Your task to perform on an android device: Search for razer thresher on ebay.com, select the first entry, add it to the cart, then select checkout. Image 0: 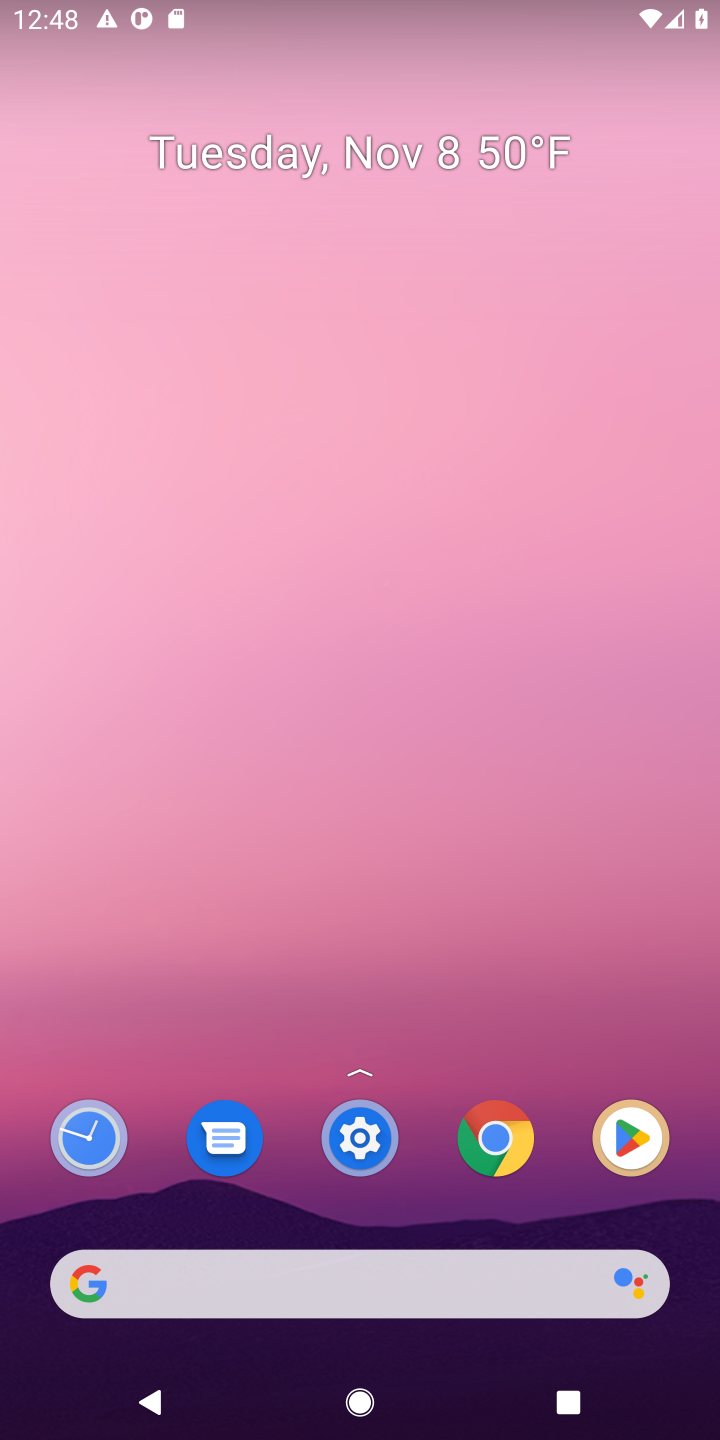
Step 0: click (314, 1315)
Your task to perform on an android device: Search for razer thresher on ebay.com, select the first entry, add it to the cart, then select checkout. Image 1: 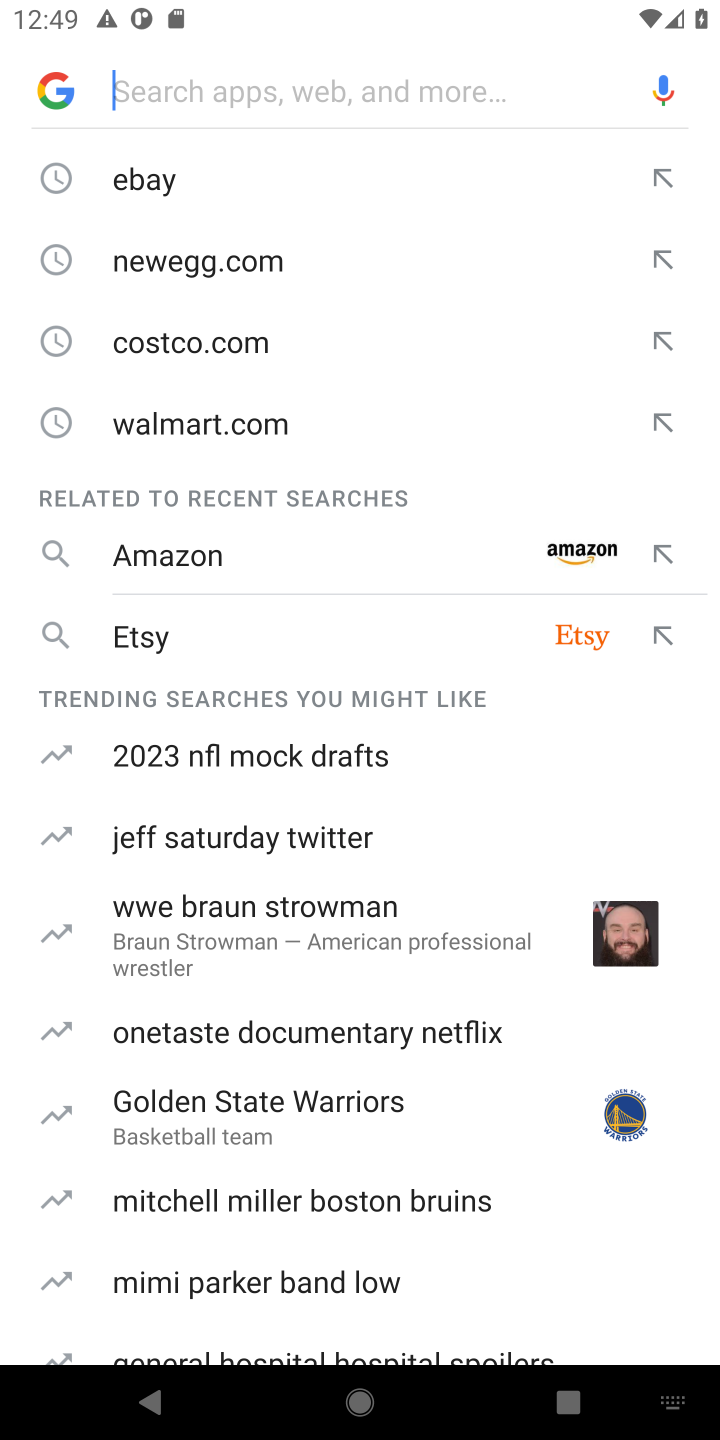
Step 1: click (275, 200)
Your task to perform on an android device: Search for razer thresher on ebay.com, select the first entry, add it to the cart, then select checkout. Image 2: 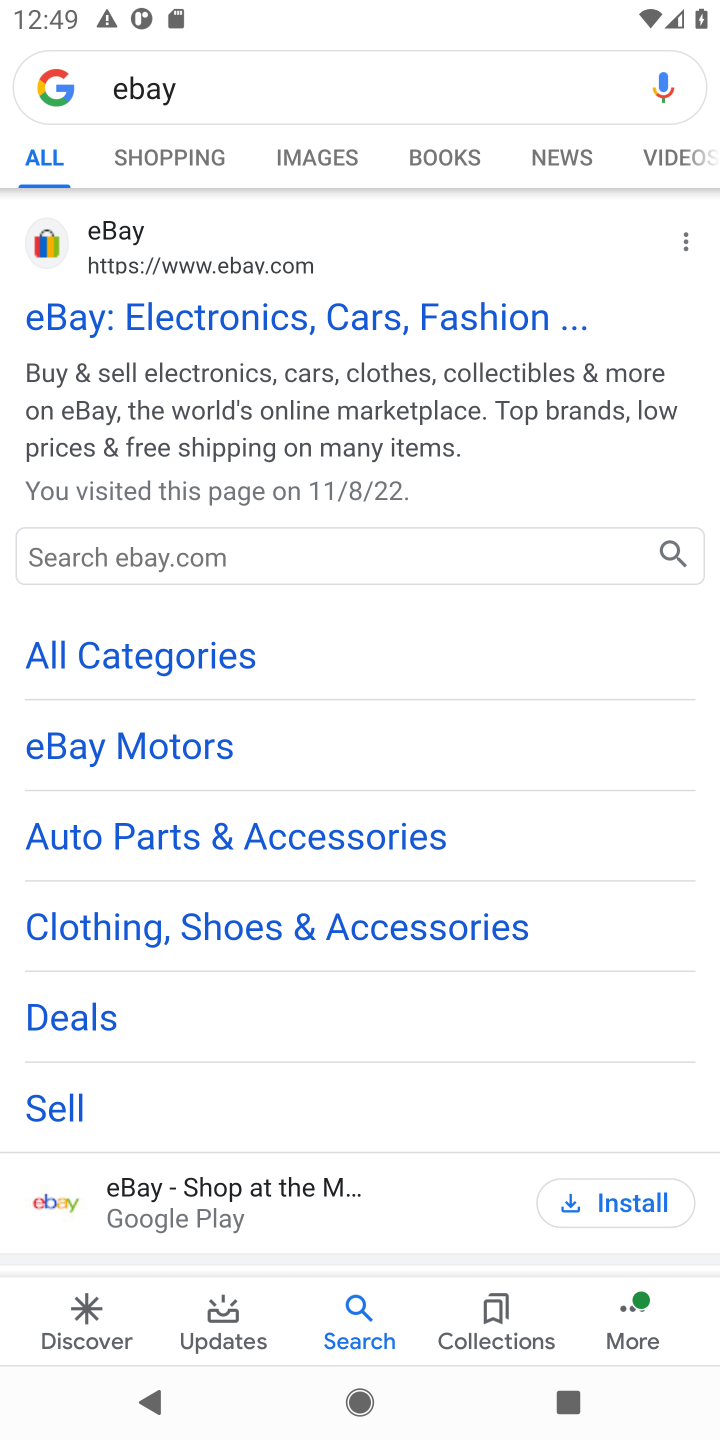
Step 2: click (228, 304)
Your task to perform on an android device: Search for razer thresher on ebay.com, select the first entry, add it to the cart, then select checkout. Image 3: 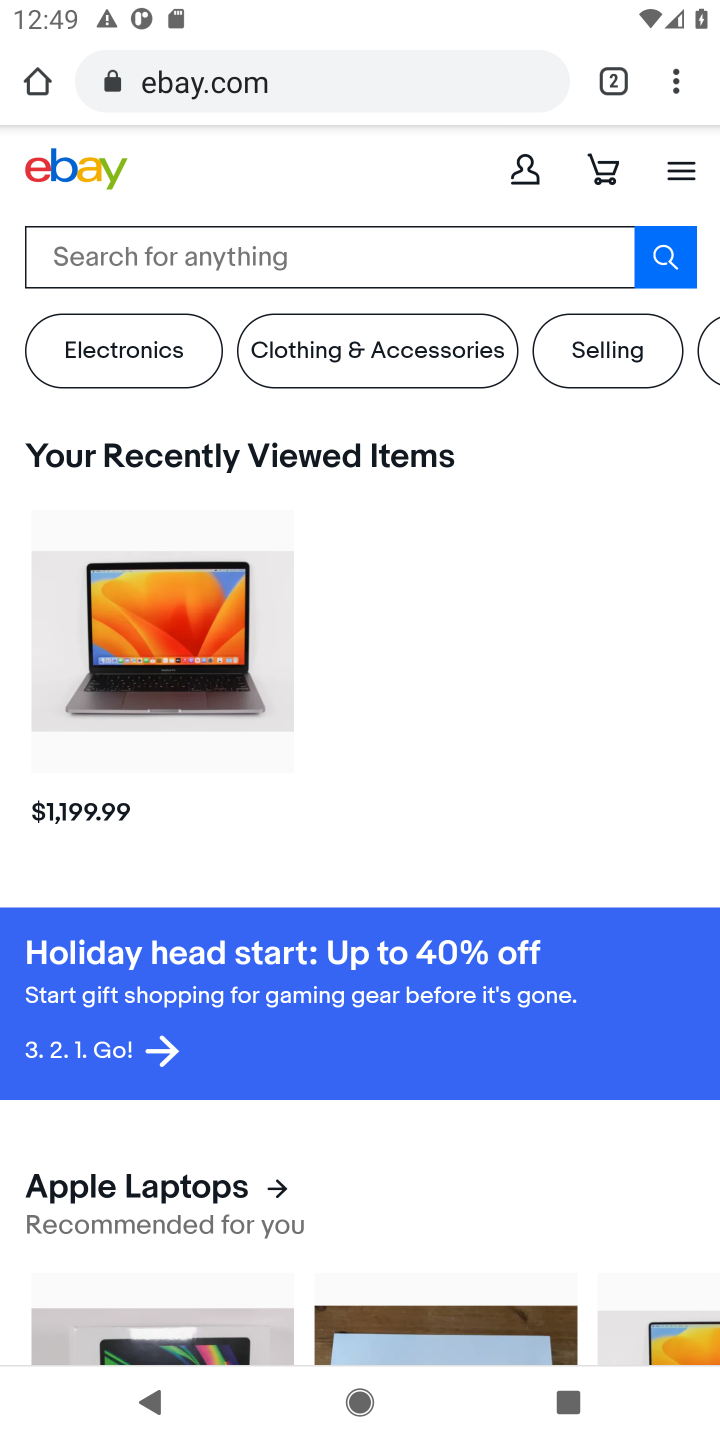
Step 3: click (286, 248)
Your task to perform on an android device: Search for razer thresher on ebay.com, select the first entry, add it to the cart, then select checkout. Image 4: 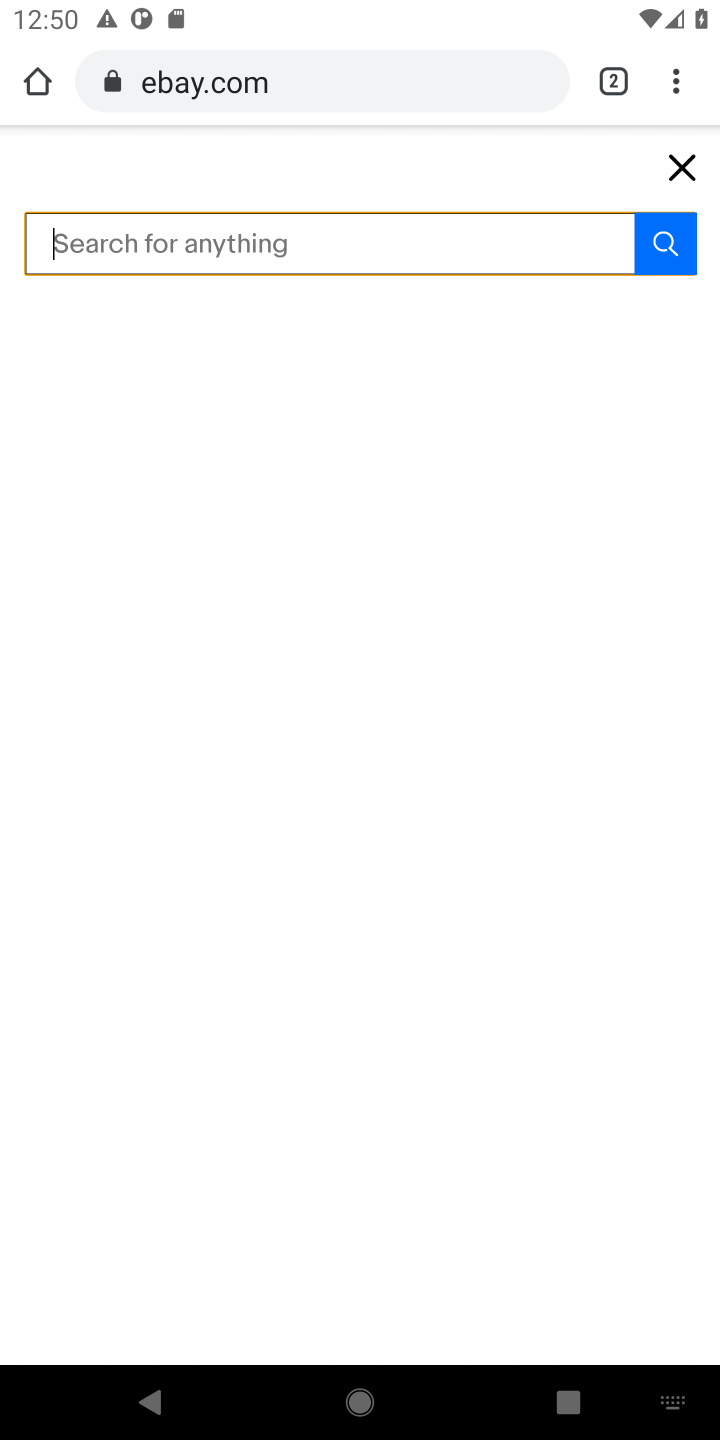
Step 4: type "ebay.coom"
Your task to perform on an android device: Search for razer thresher on ebay.com, select the first entry, add it to the cart, then select checkout. Image 5: 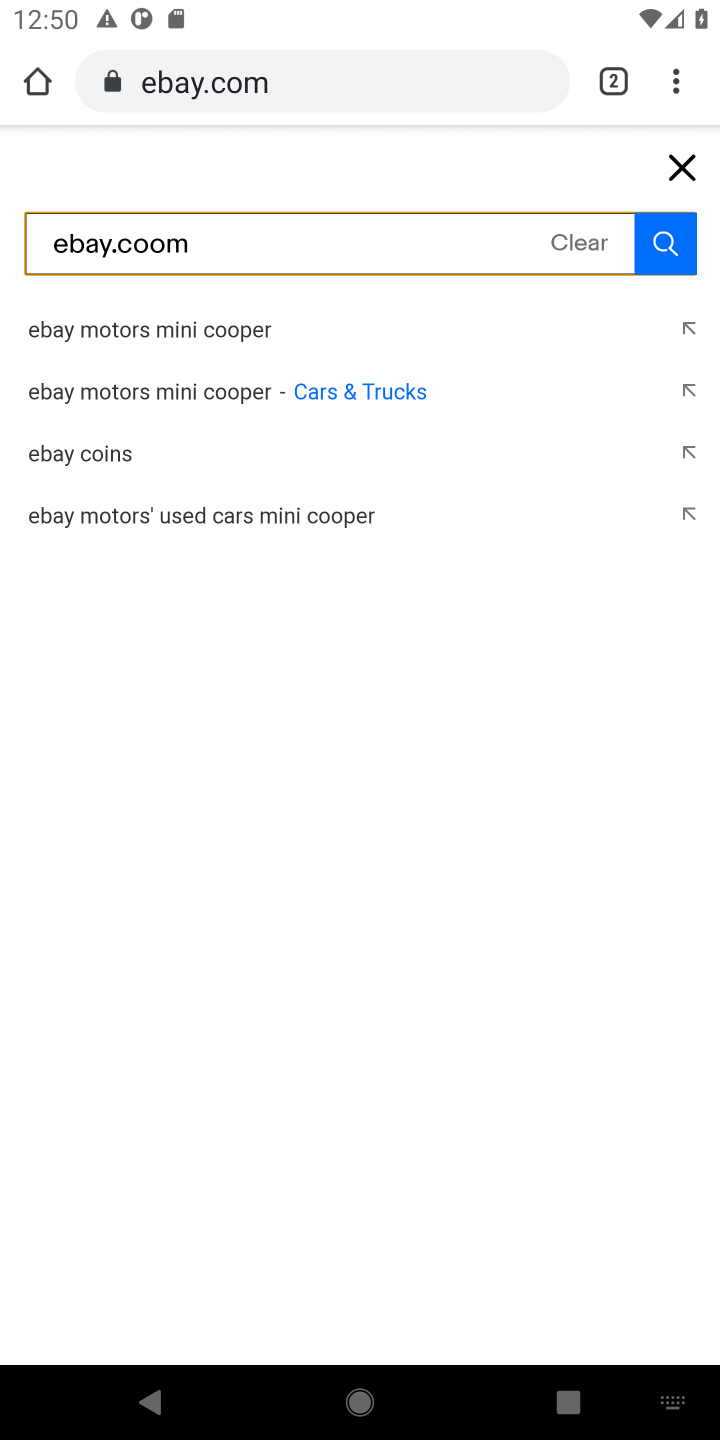
Step 5: task complete